Your task to perform on an android device: turn on sleep mode Image 0: 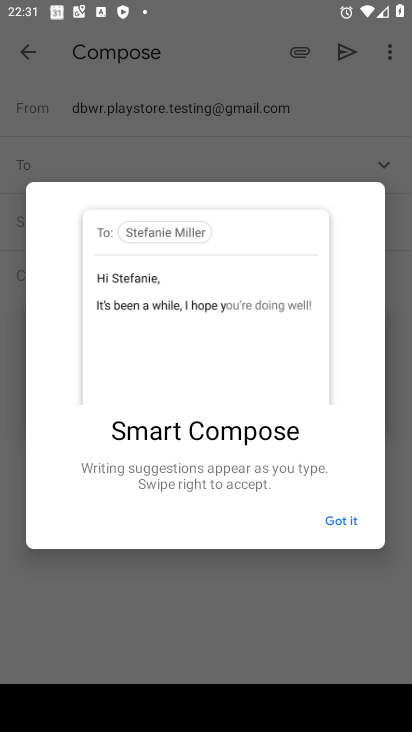
Step 0: press home button
Your task to perform on an android device: turn on sleep mode Image 1: 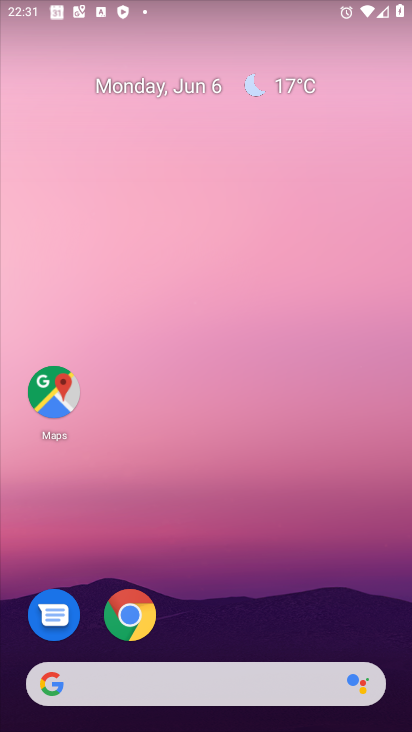
Step 1: drag from (395, 707) to (332, 90)
Your task to perform on an android device: turn on sleep mode Image 2: 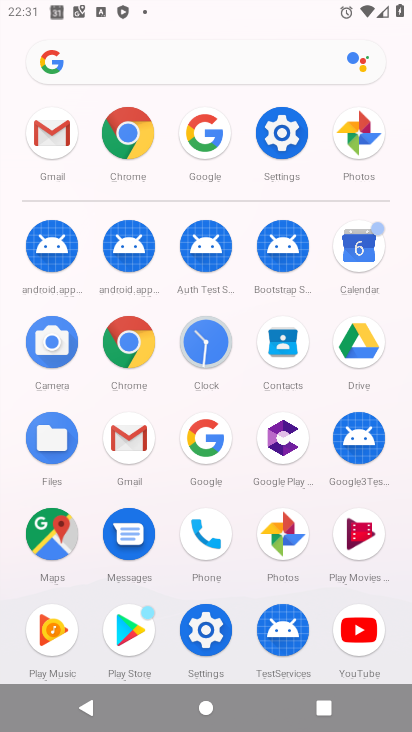
Step 2: click (276, 140)
Your task to perform on an android device: turn on sleep mode Image 3: 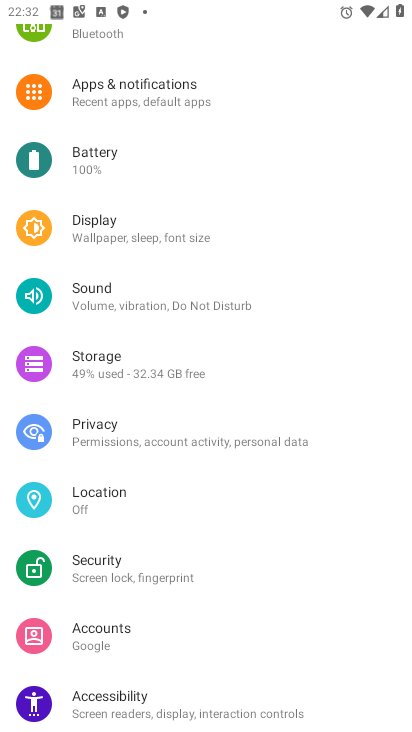
Step 3: click (147, 232)
Your task to perform on an android device: turn on sleep mode Image 4: 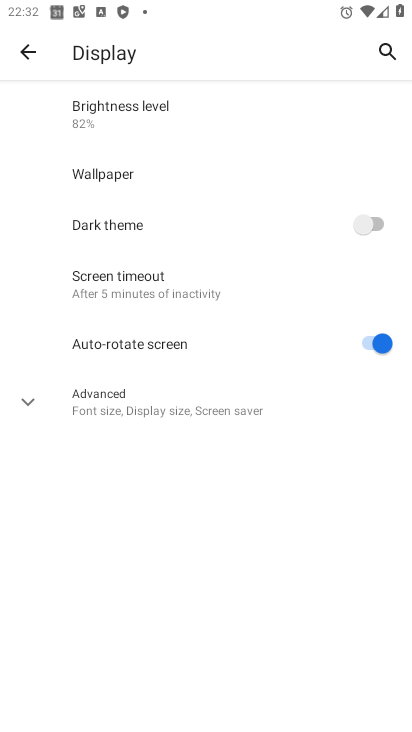
Step 4: click (117, 295)
Your task to perform on an android device: turn on sleep mode Image 5: 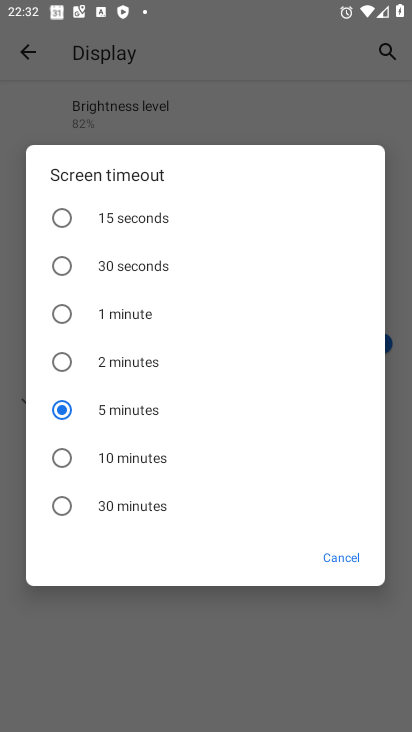
Step 5: task complete